Your task to perform on an android device: open chrome and create a bookmark for the current page Image 0: 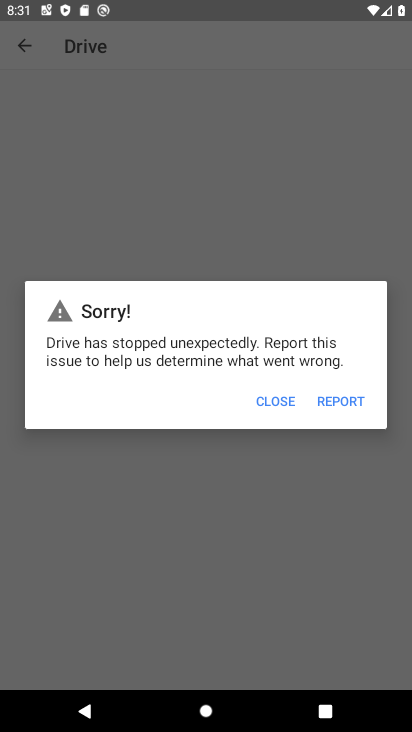
Step 0: press home button
Your task to perform on an android device: open chrome and create a bookmark for the current page Image 1: 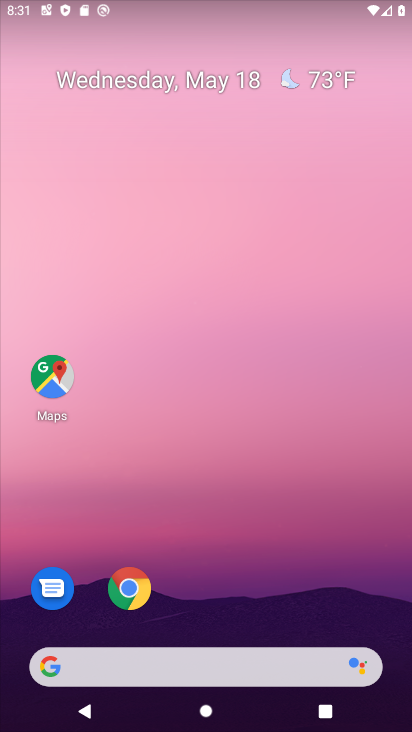
Step 1: drag from (348, 537) to (368, 130)
Your task to perform on an android device: open chrome and create a bookmark for the current page Image 2: 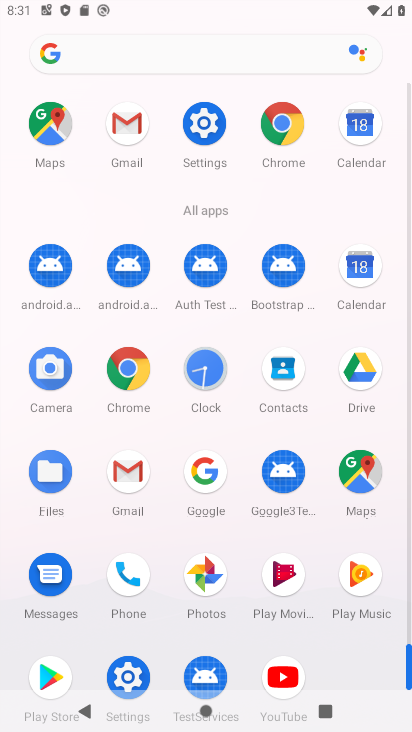
Step 2: click (125, 380)
Your task to perform on an android device: open chrome and create a bookmark for the current page Image 3: 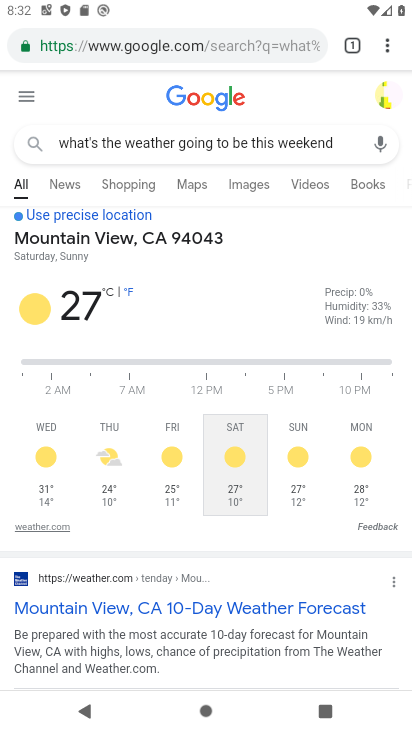
Step 3: task complete